Your task to perform on an android device: Show the shopping cart on amazon. Image 0: 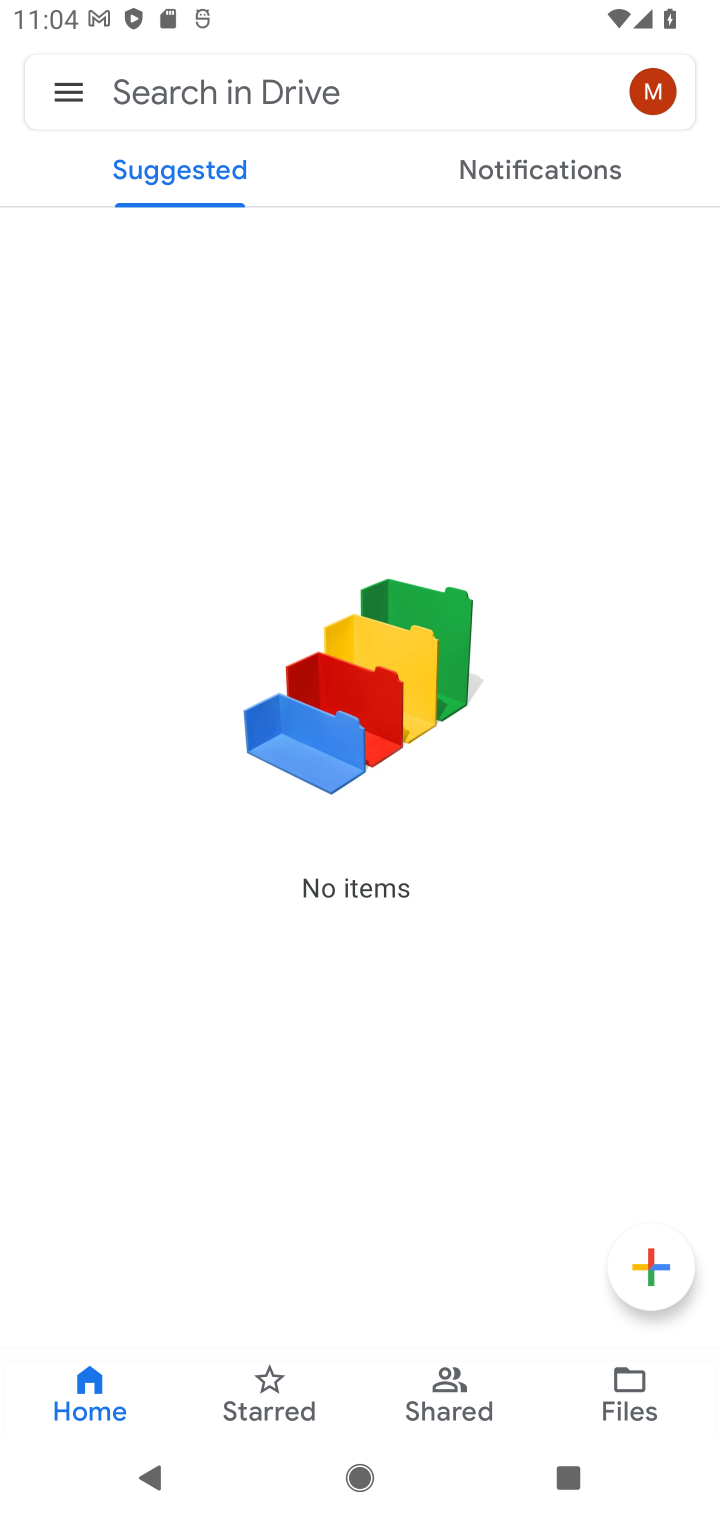
Step 0: press home button
Your task to perform on an android device: Show the shopping cart on amazon. Image 1: 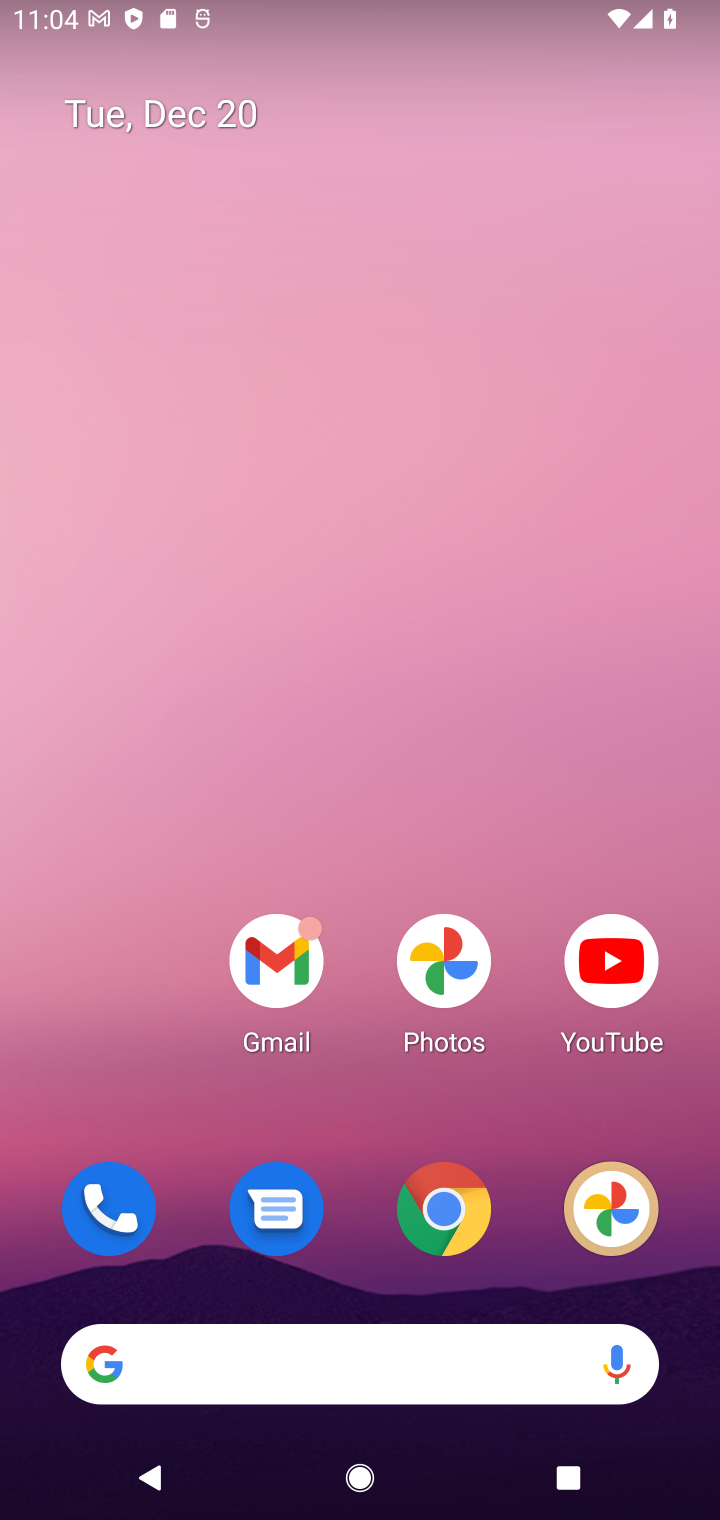
Step 1: click (433, 1199)
Your task to perform on an android device: Show the shopping cart on amazon. Image 2: 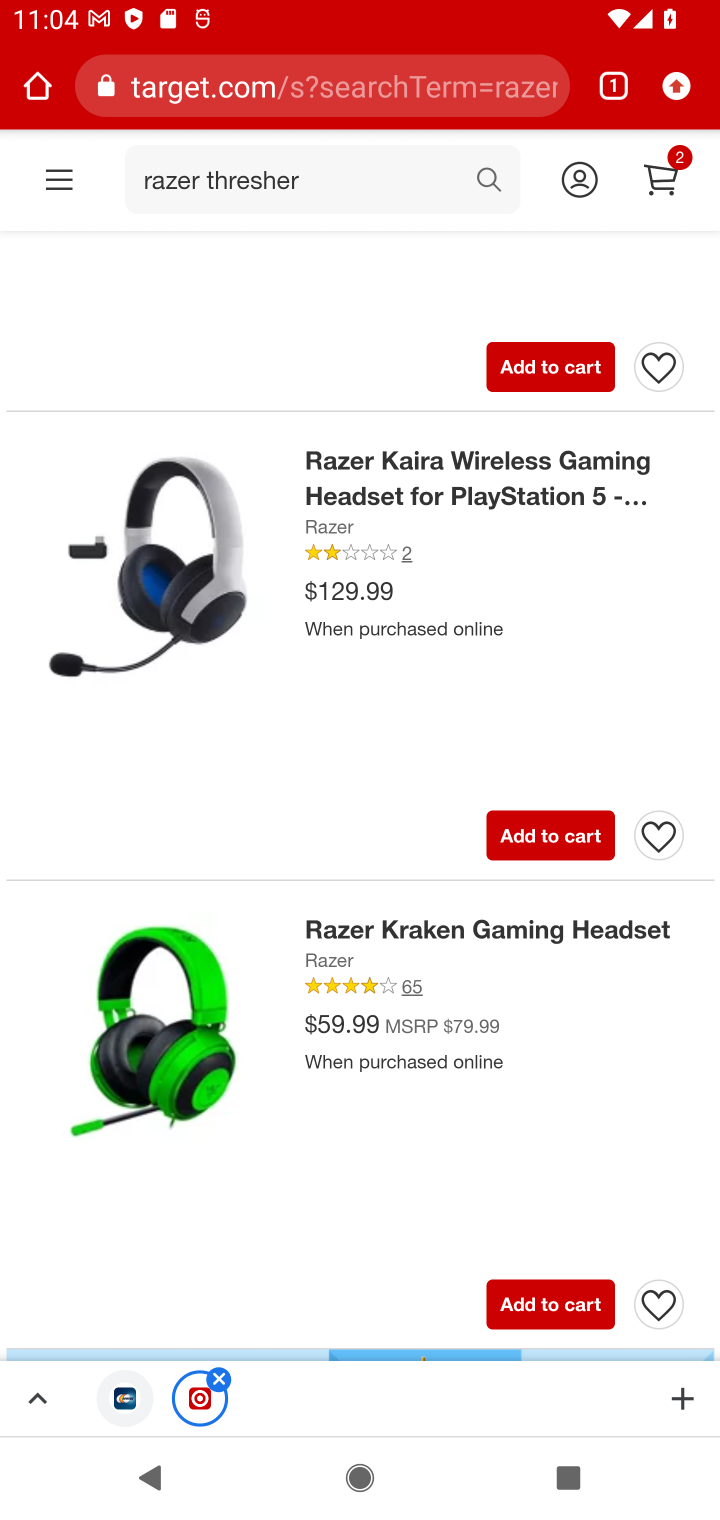
Step 2: click (217, 86)
Your task to perform on an android device: Show the shopping cart on amazon. Image 3: 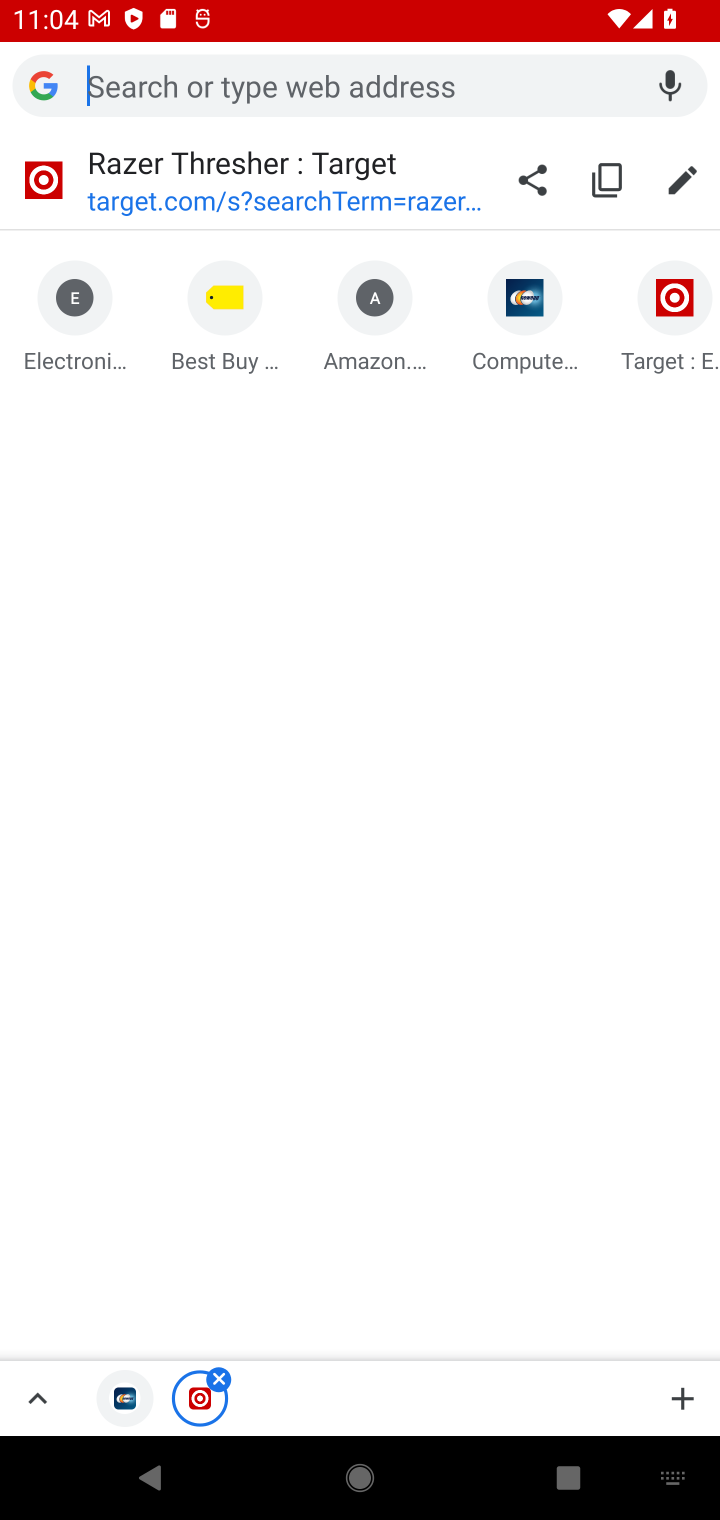
Step 3: click (347, 340)
Your task to perform on an android device: Show the shopping cart on amazon. Image 4: 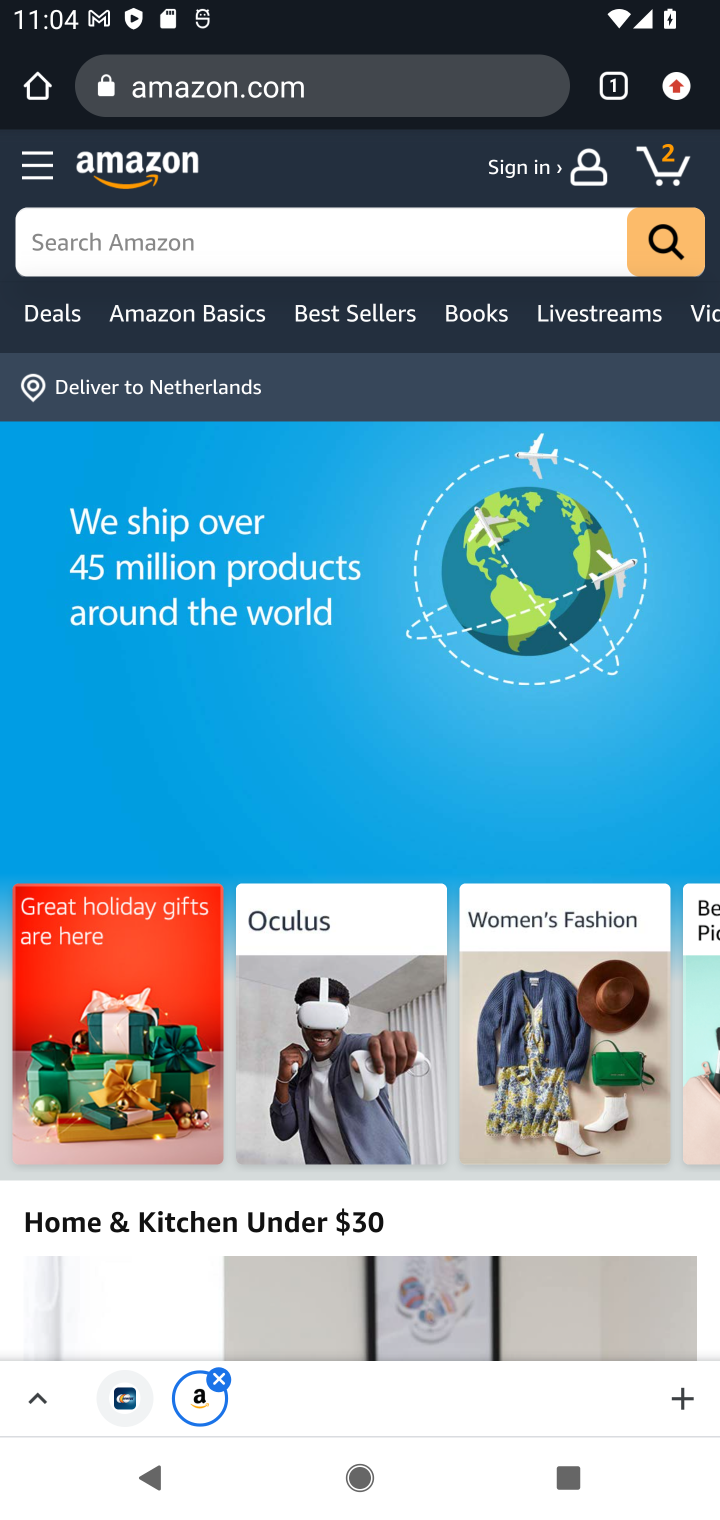
Step 4: click (665, 163)
Your task to perform on an android device: Show the shopping cart on amazon. Image 5: 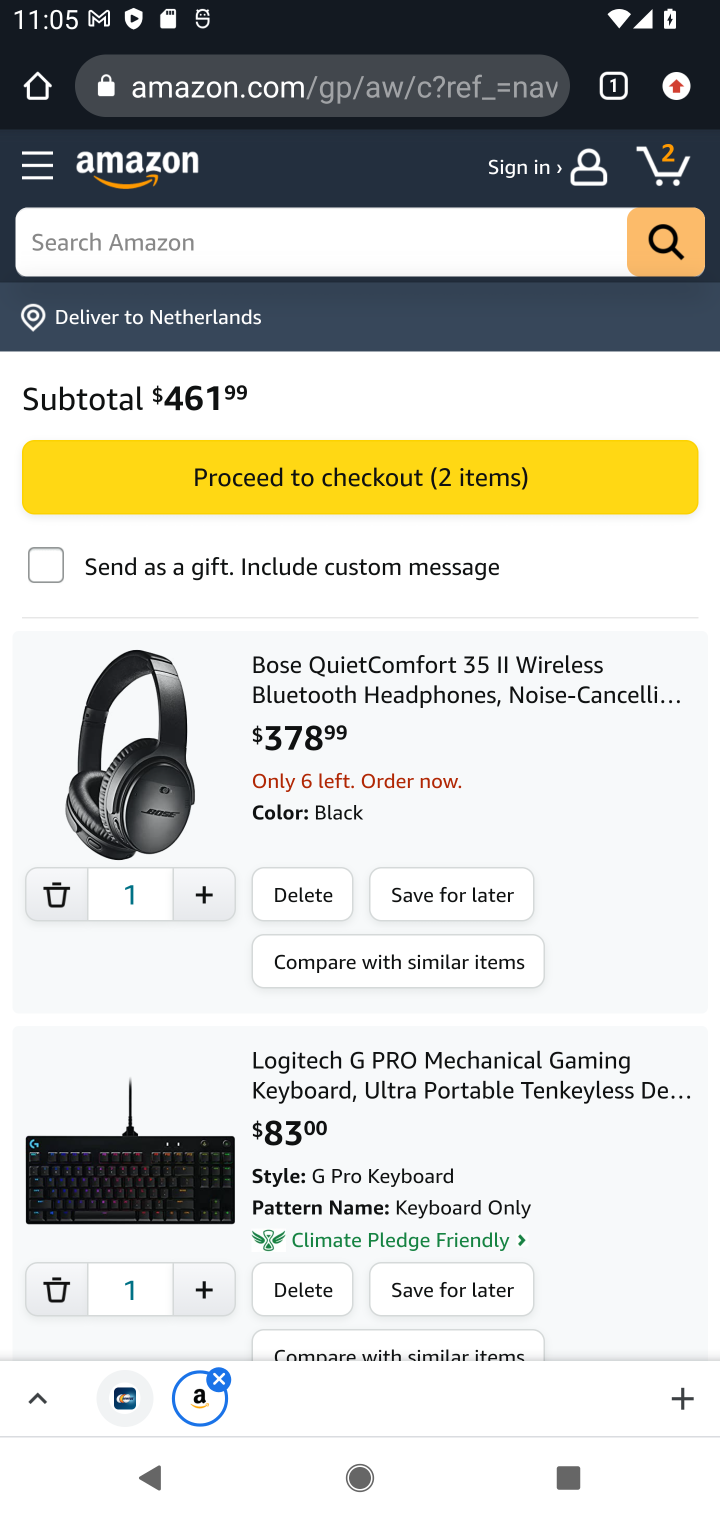
Step 5: task complete